Your task to perform on an android device: clear history in the chrome app Image 0: 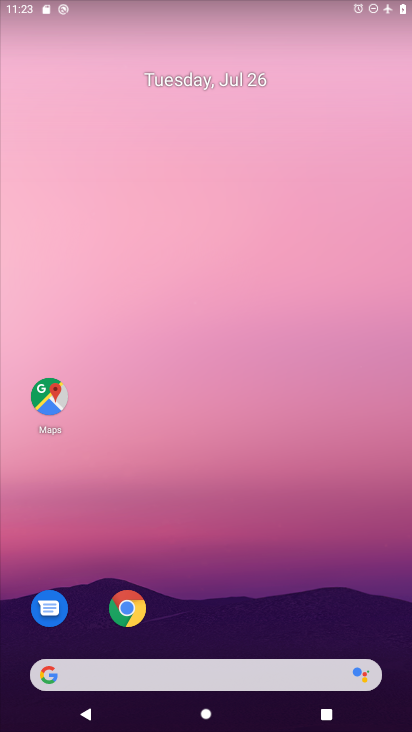
Step 0: drag from (302, 574) to (288, 41)
Your task to perform on an android device: clear history in the chrome app Image 1: 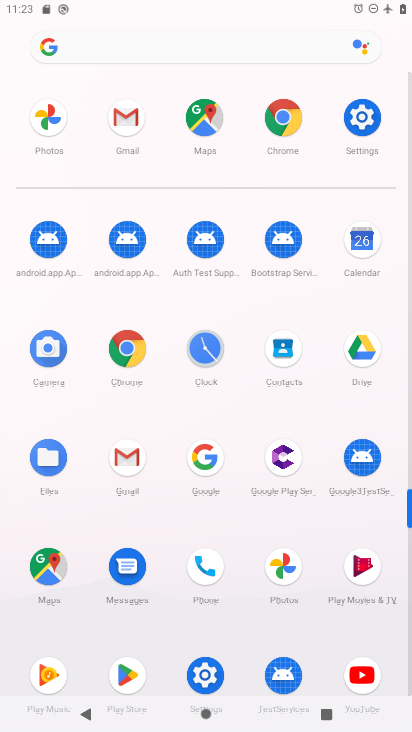
Step 1: click (287, 119)
Your task to perform on an android device: clear history in the chrome app Image 2: 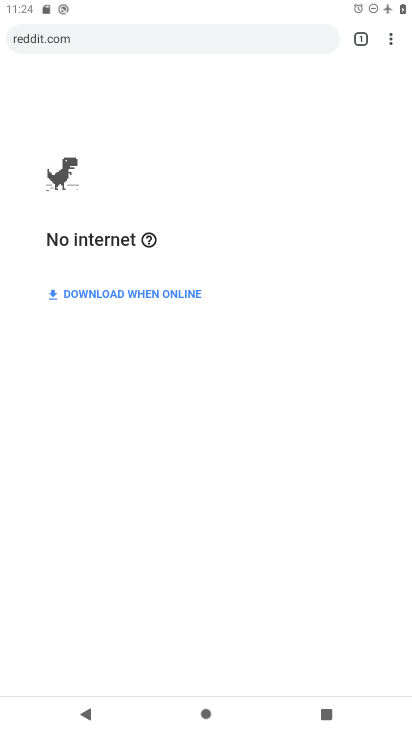
Step 2: drag from (386, 43) to (283, 224)
Your task to perform on an android device: clear history in the chrome app Image 3: 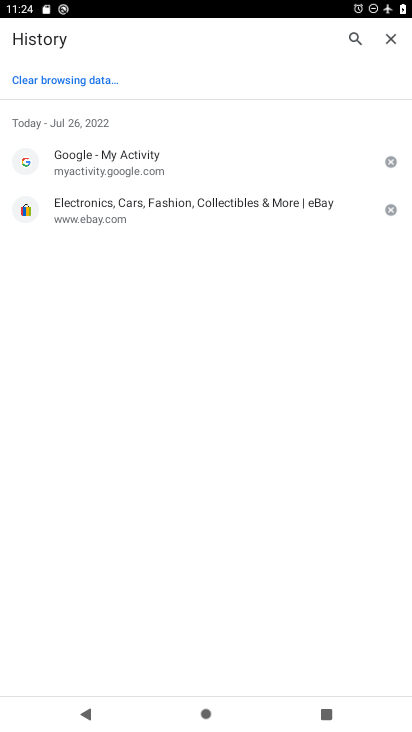
Step 3: click (75, 77)
Your task to perform on an android device: clear history in the chrome app Image 4: 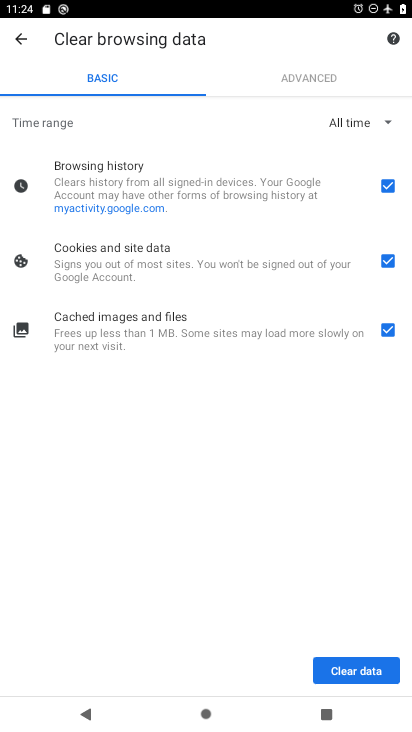
Step 4: click (372, 674)
Your task to perform on an android device: clear history in the chrome app Image 5: 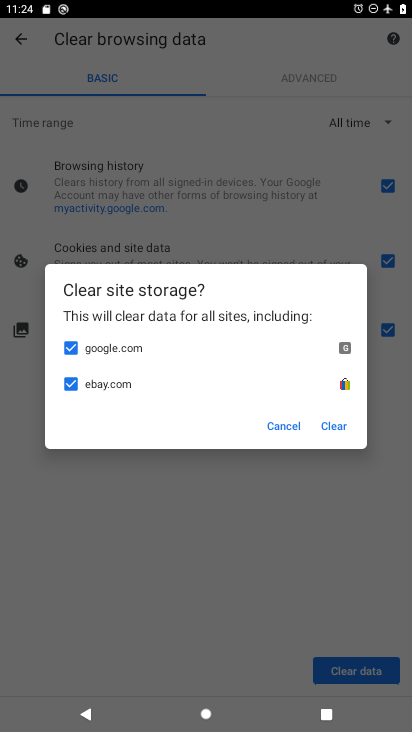
Step 5: click (337, 431)
Your task to perform on an android device: clear history in the chrome app Image 6: 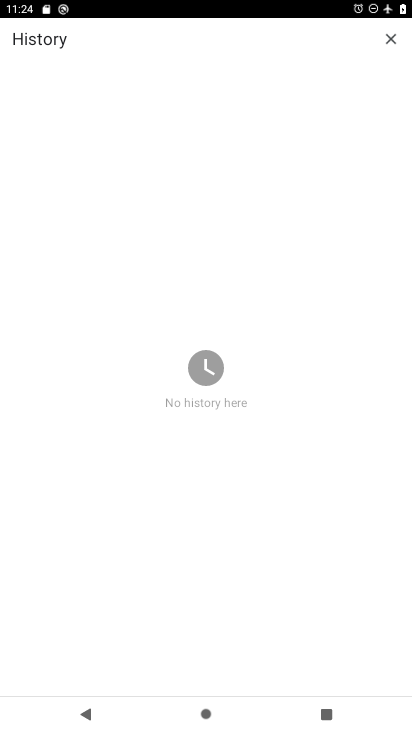
Step 6: task complete